Your task to perform on an android device: add a label to a message in the gmail app Image 0: 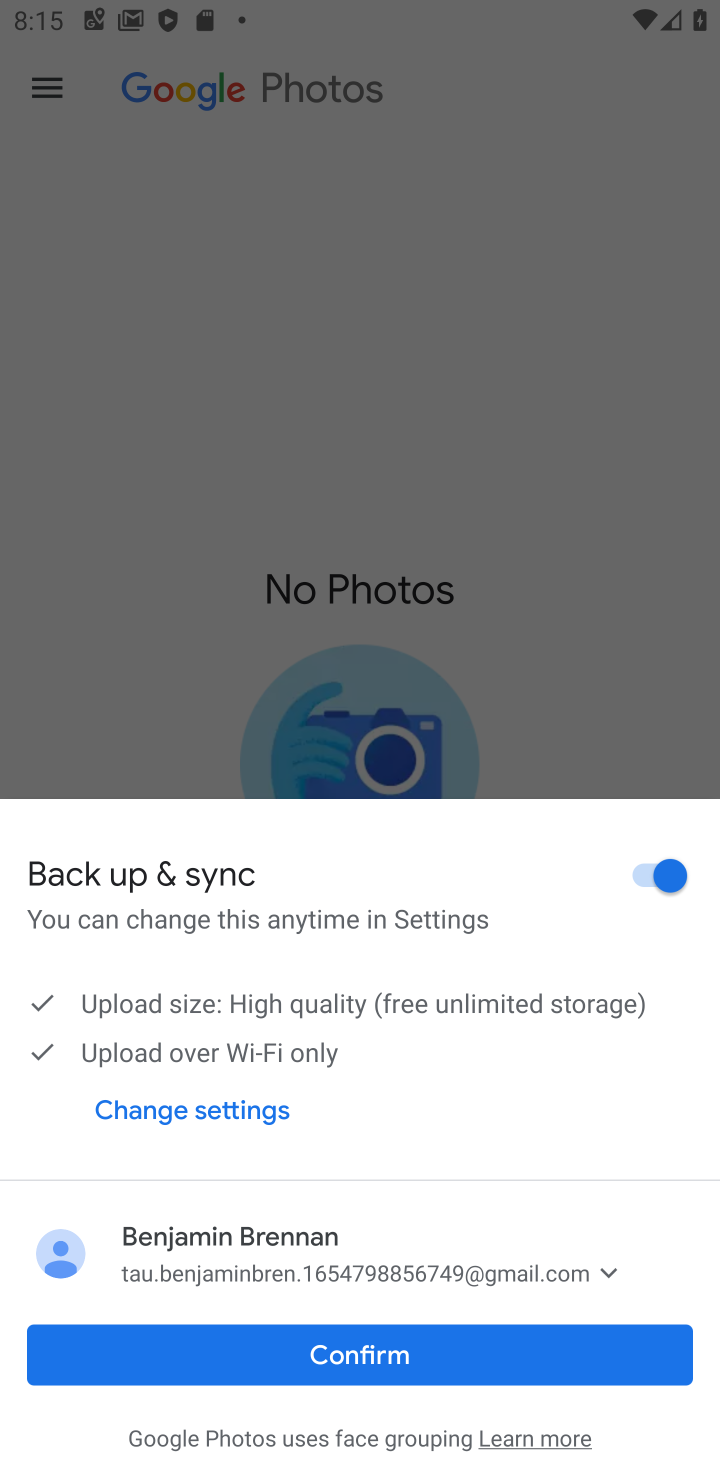
Step 0: press home button
Your task to perform on an android device: add a label to a message in the gmail app Image 1: 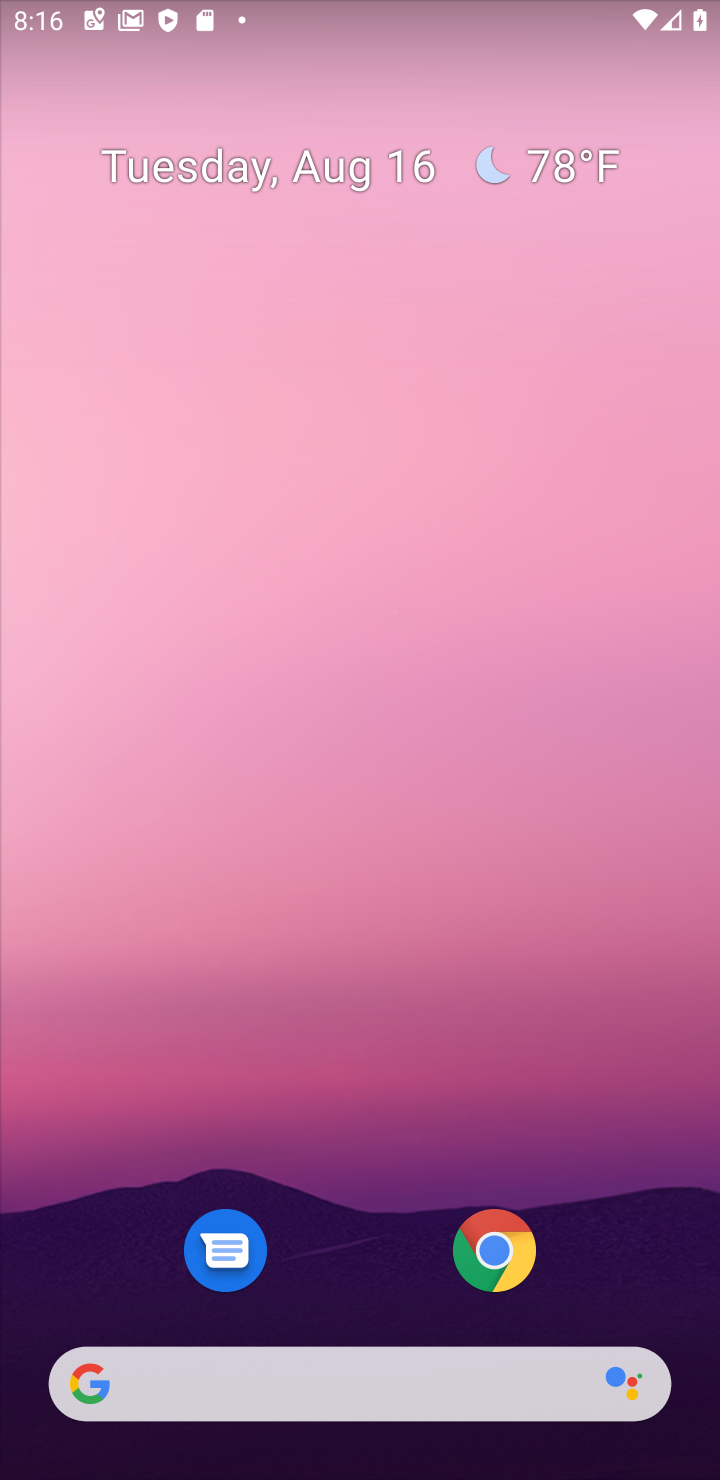
Step 1: drag from (373, 1221) to (116, 91)
Your task to perform on an android device: add a label to a message in the gmail app Image 2: 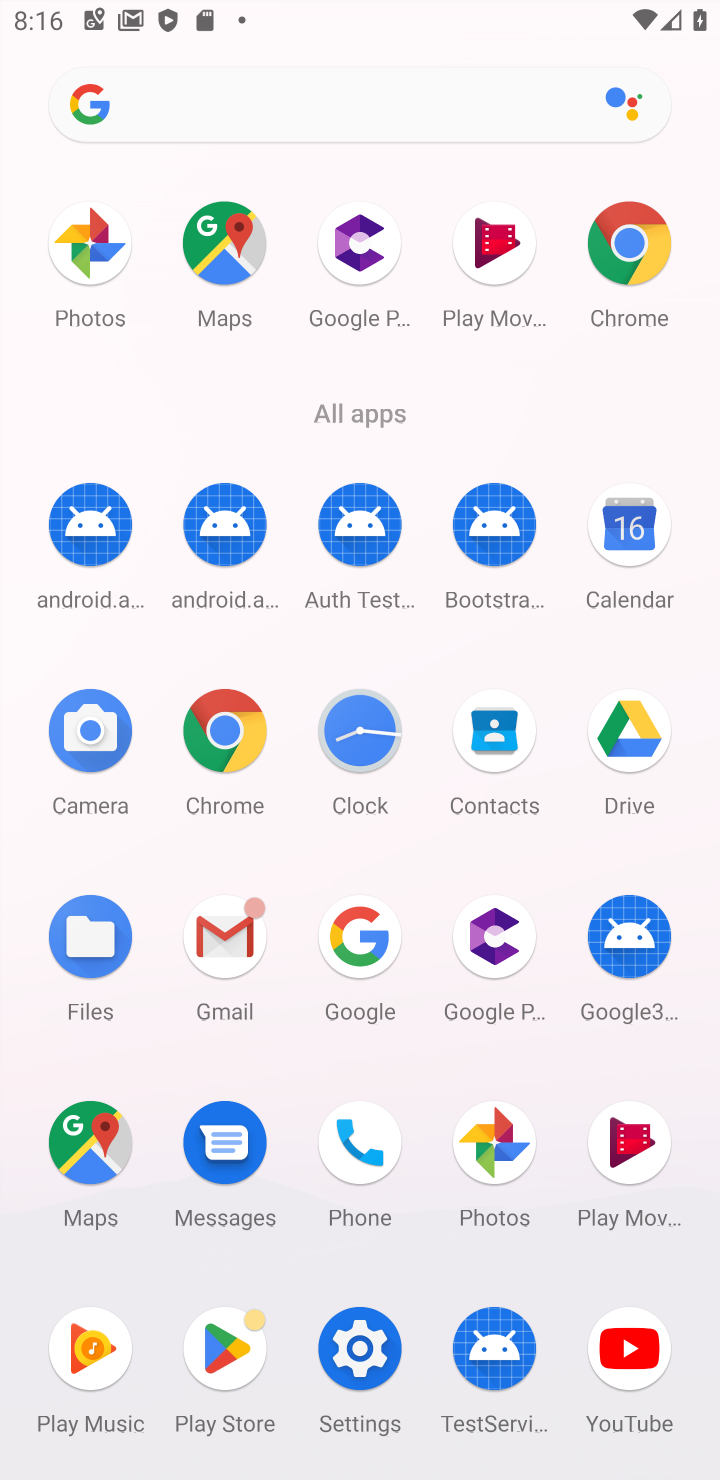
Step 2: click (241, 925)
Your task to perform on an android device: add a label to a message in the gmail app Image 3: 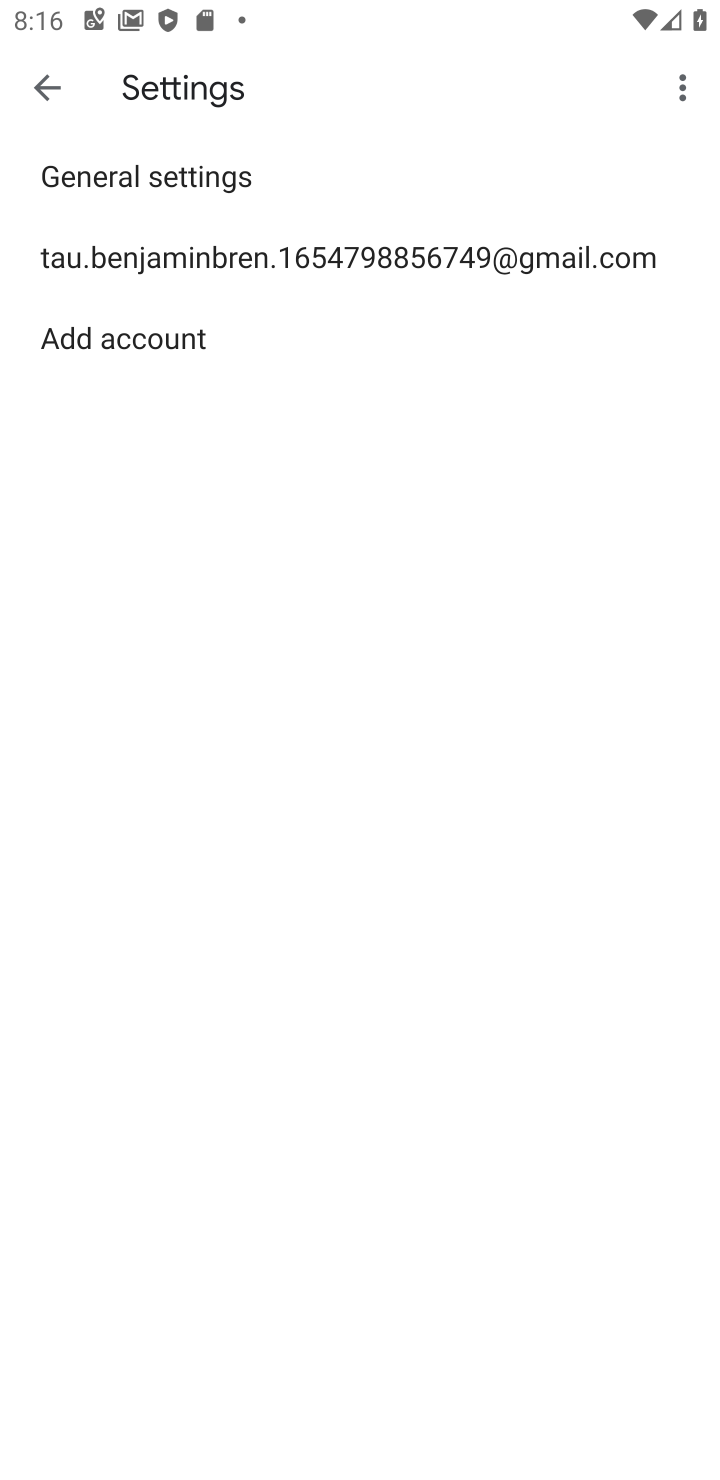
Step 3: click (53, 90)
Your task to perform on an android device: add a label to a message in the gmail app Image 4: 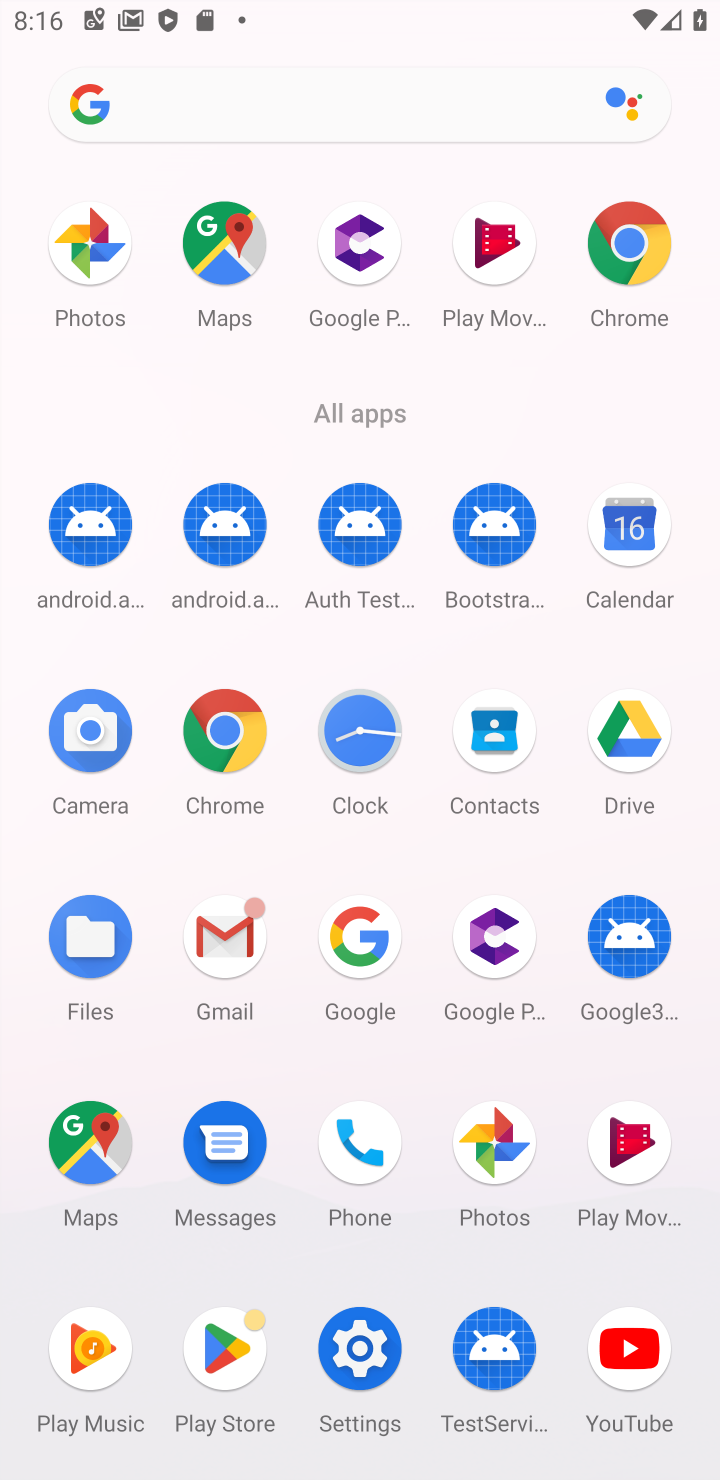
Step 4: click (235, 942)
Your task to perform on an android device: add a label to a message in the gmail app Image 5: 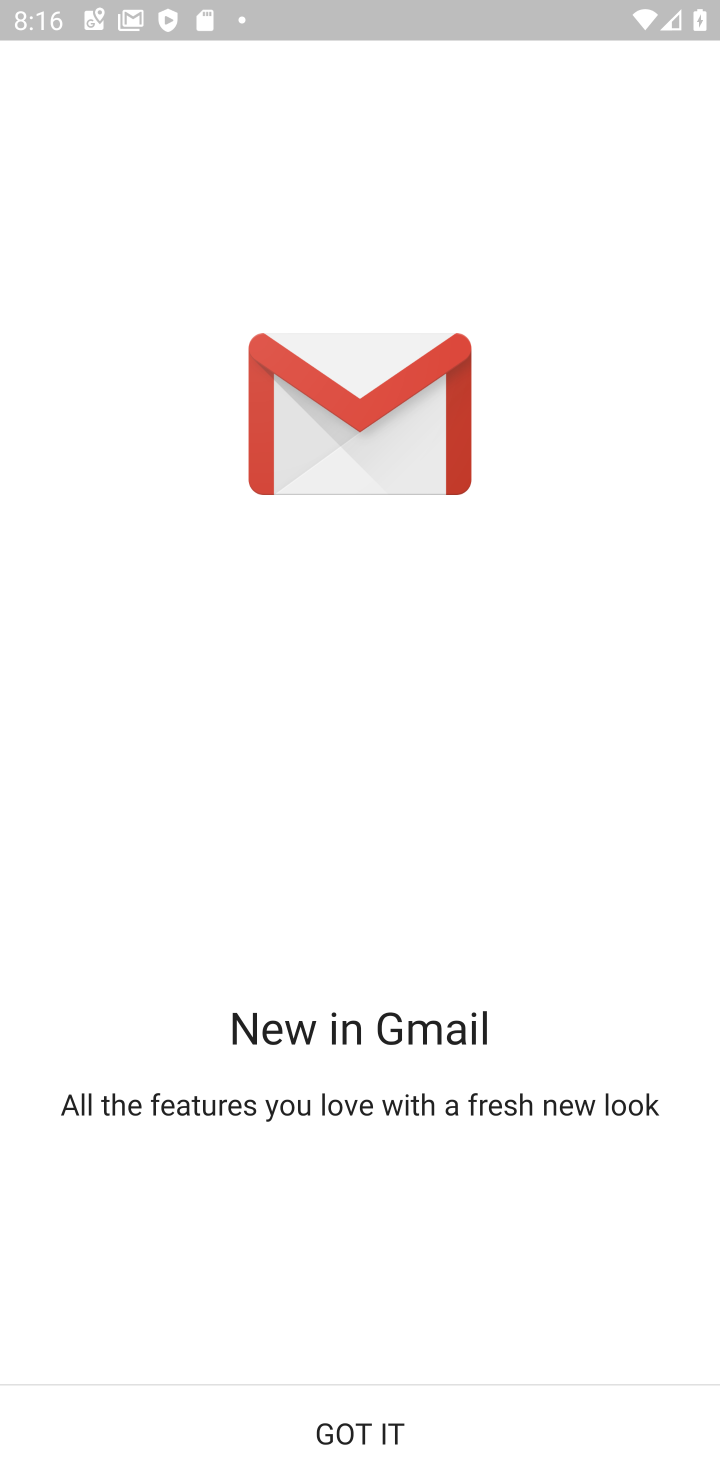
Step 5: click (333, 1446)
Your task to perform on an android device: add a label to a message in the gmail app Image 6: 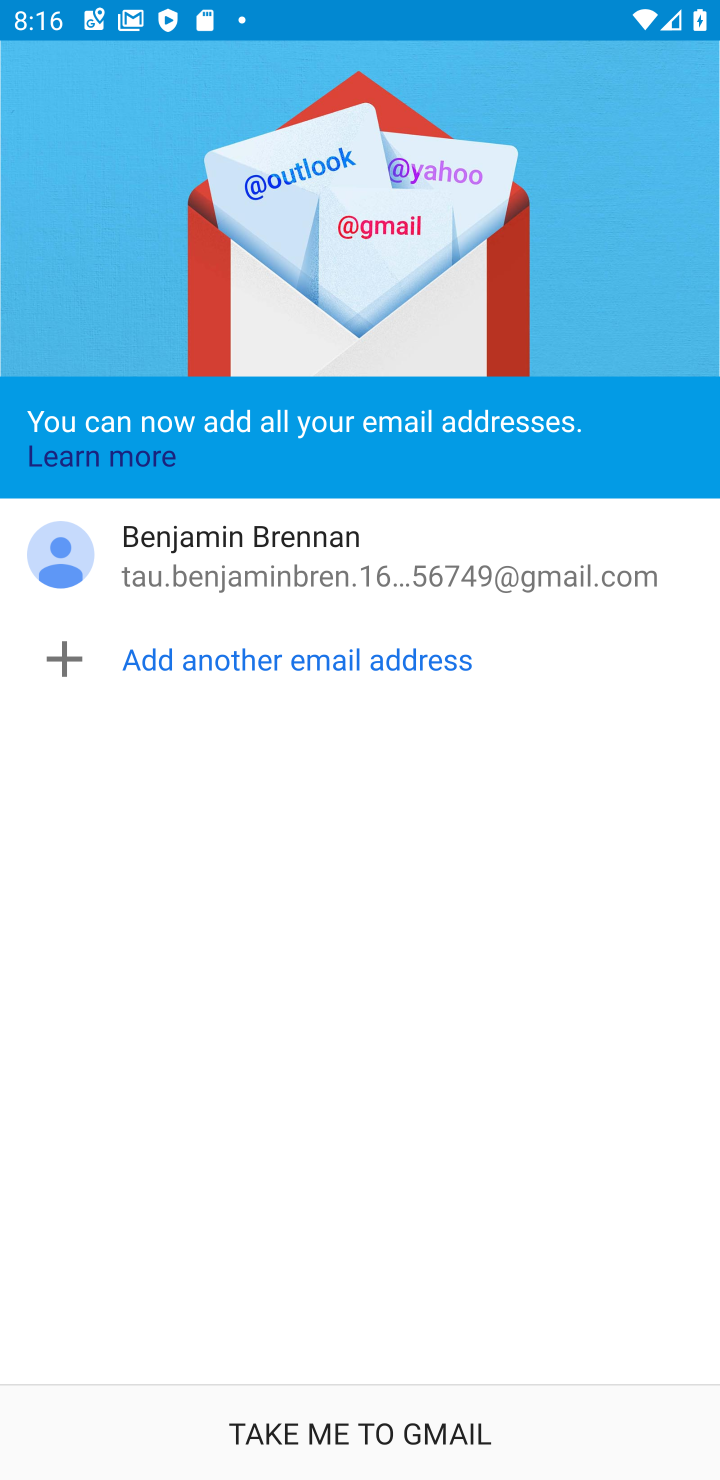
Step 6: click (333, 1446)
Your task to perform on an android device: add a label to a message in the gmail app Image 7: 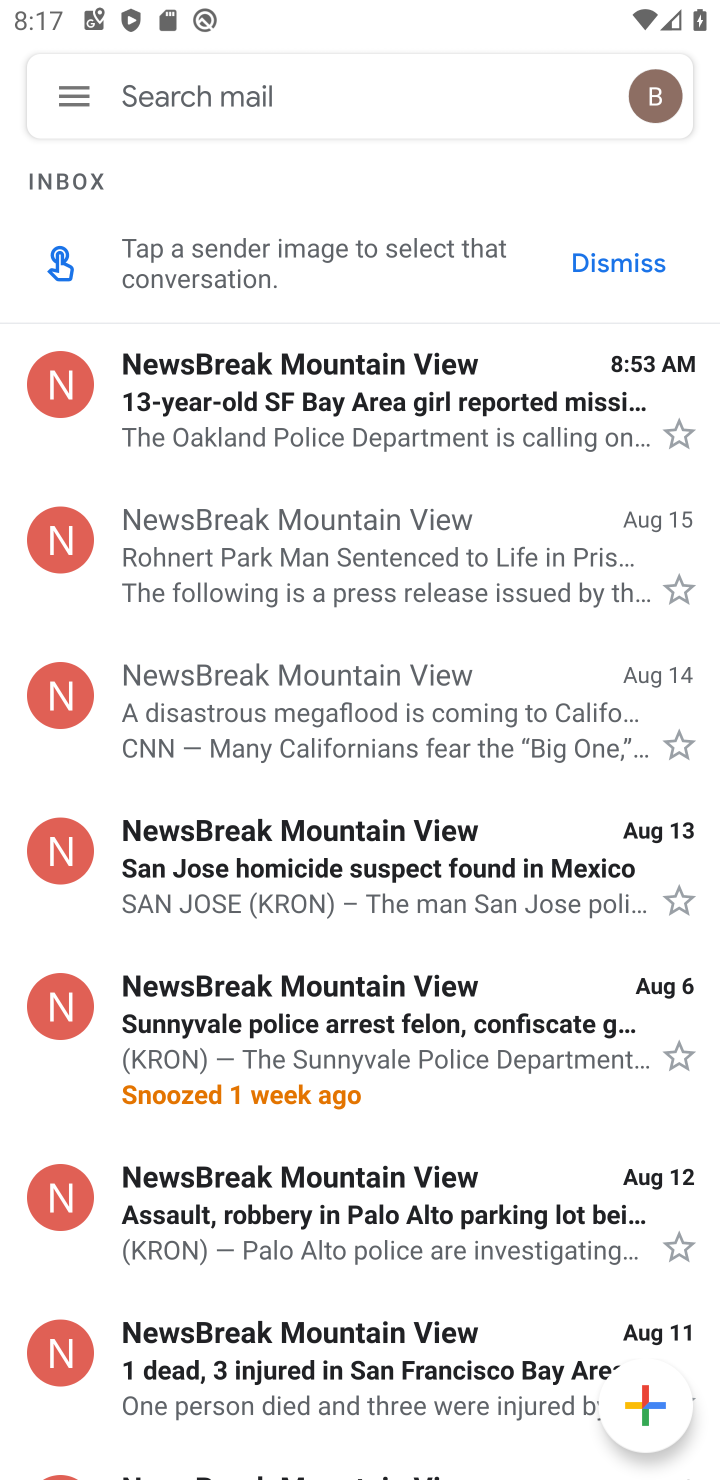
Step 7: click (67, 382)
Your task to perform on an android device: add a label to a message in the gmail app Image 8: 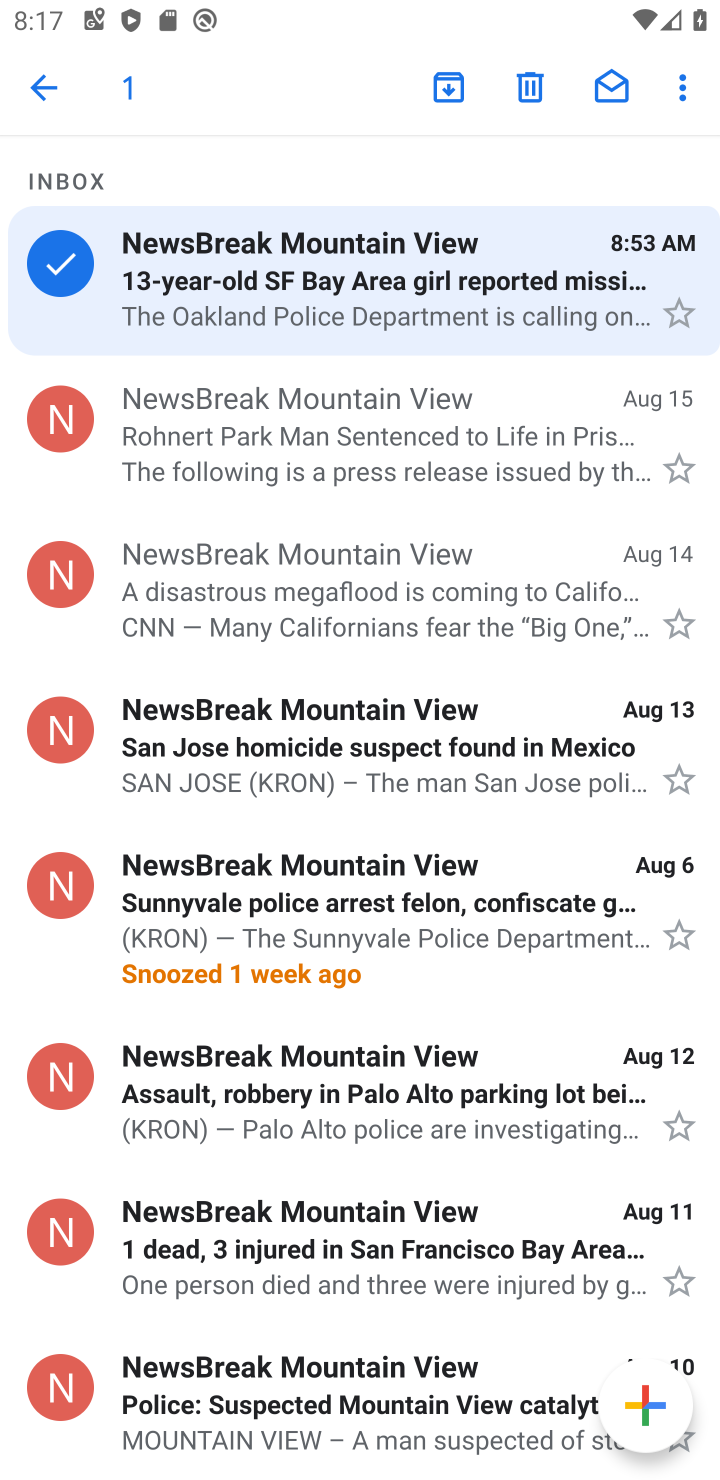
Step 8: click (692, 80)
Your task to perform on an android device: add a label to a message in the gmail app Image 9: 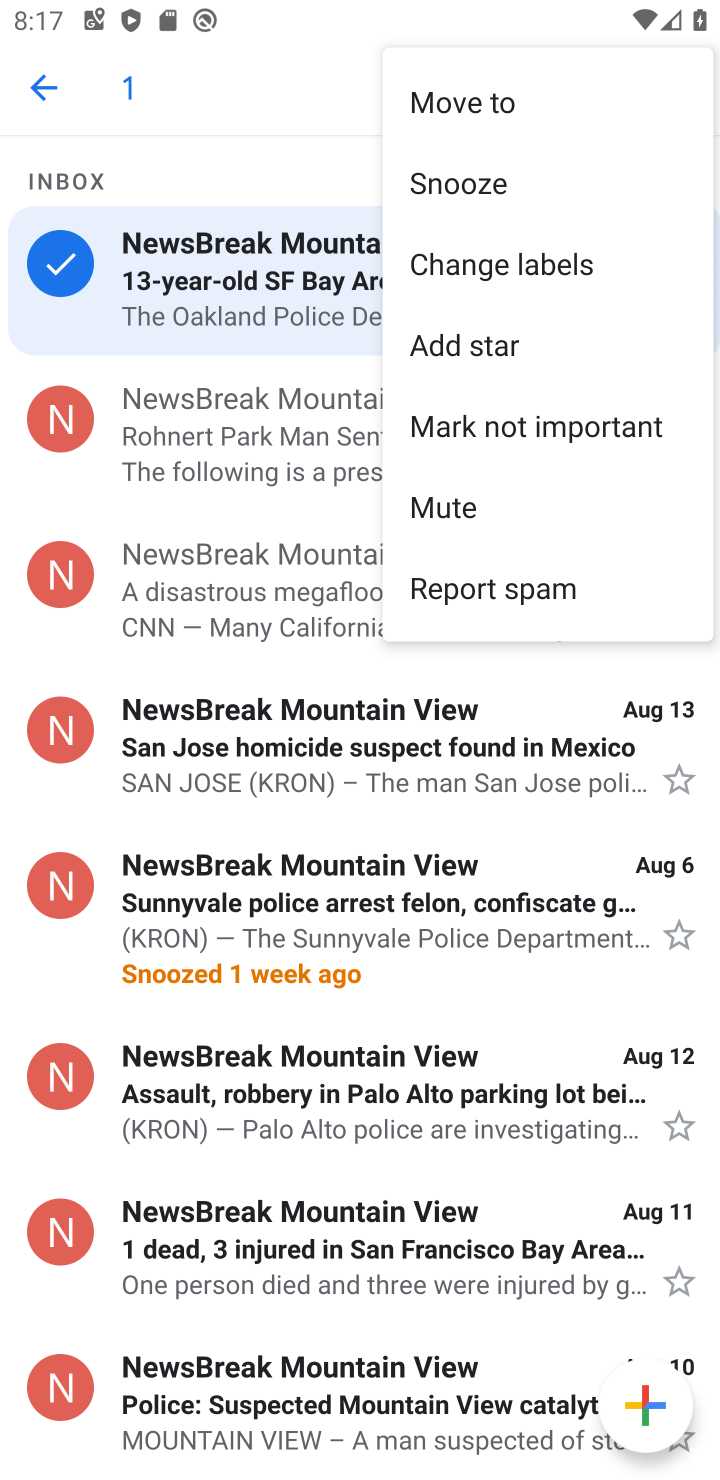
Step 9: click (515, 281)
Your task to perform on an android device: add a label to a message in the gmail app Image 10: 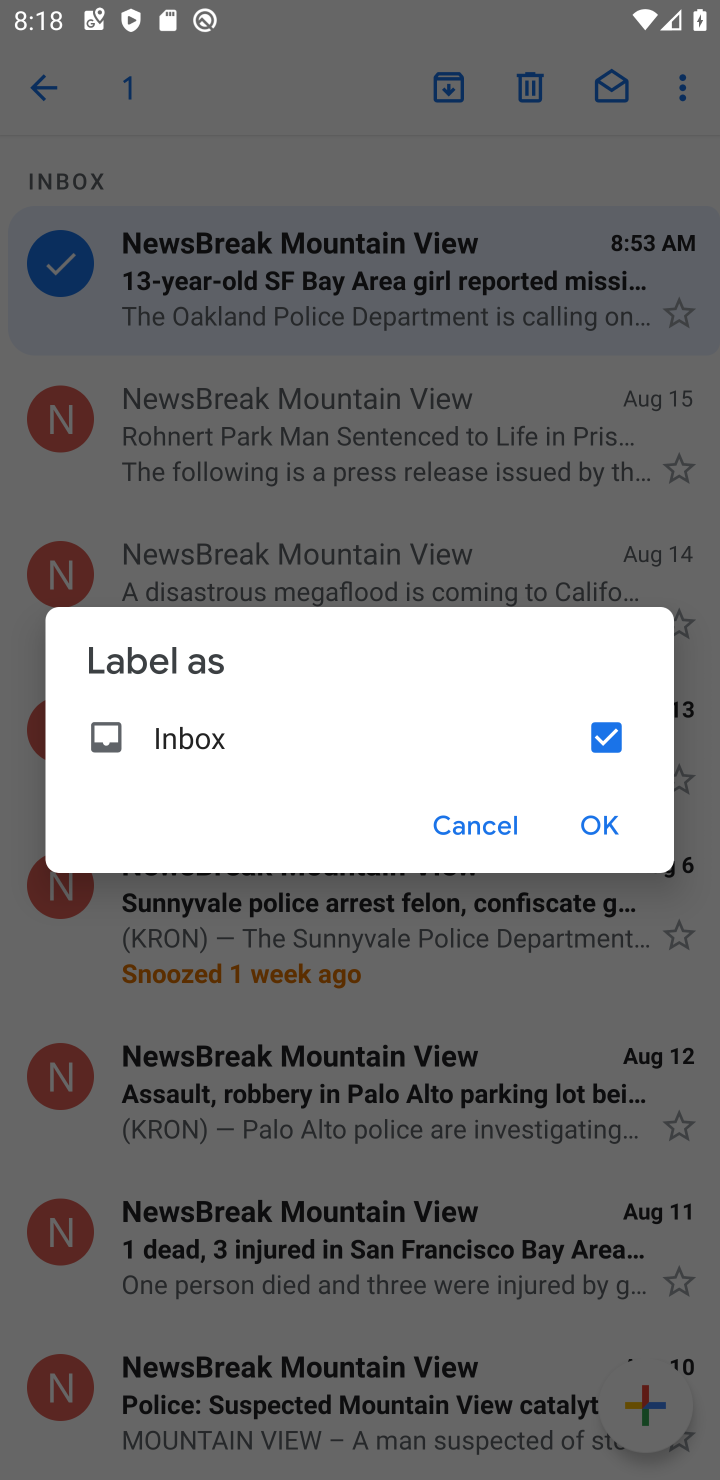
Step 10: click (598, 829)
Your task to perform on an android device: add a label to a message in the gmail app Image 11: 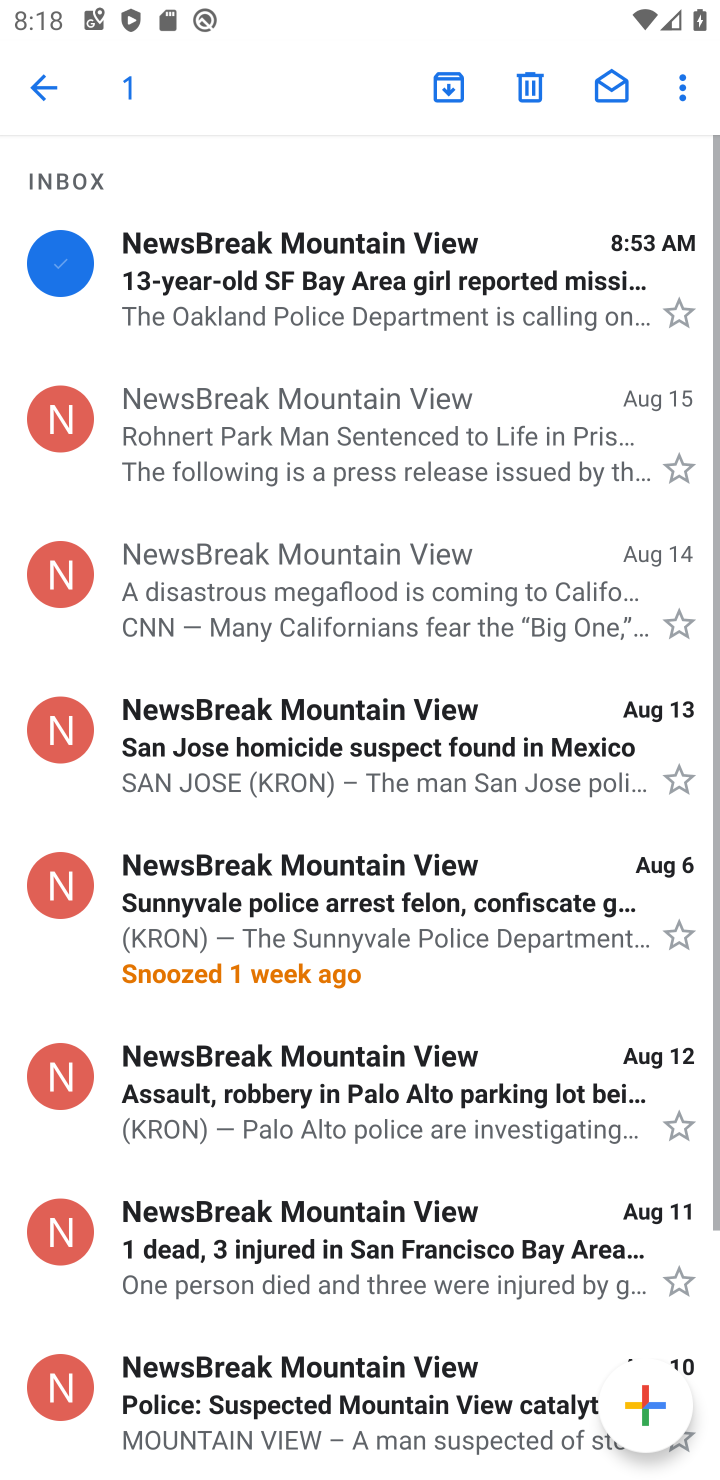
Step 11: task complete